Your task to perform on an android device: toggle airplane mode Image 0: 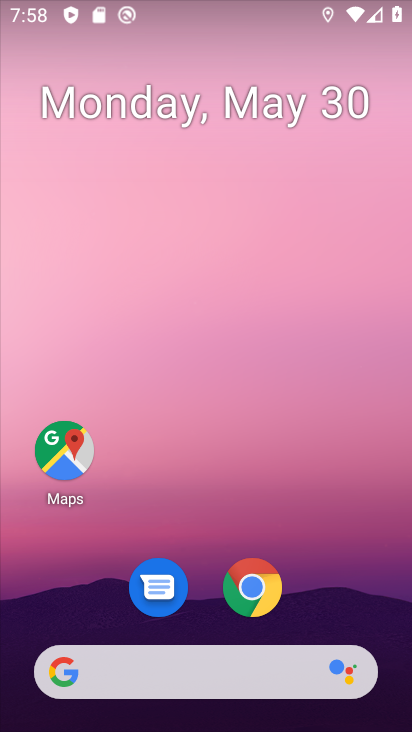
Step 0: drag from (217, 658) to (369, 93)
Your task to perform on an android device: toggle airplane mode Image 1: 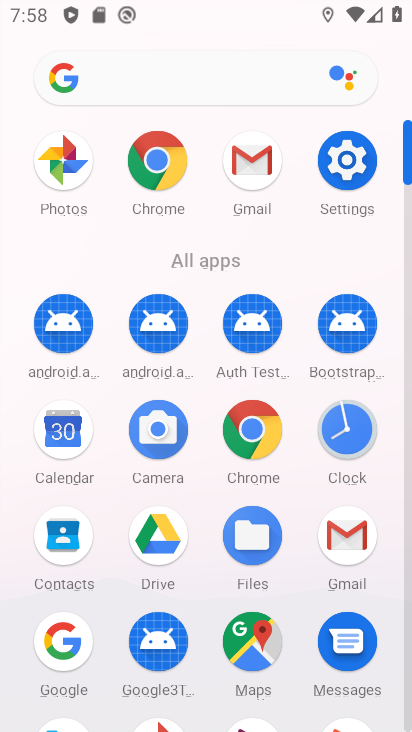
Step 1: click (354, 151)
Your task to perform on an android device: toggle airplane mode Image 2: 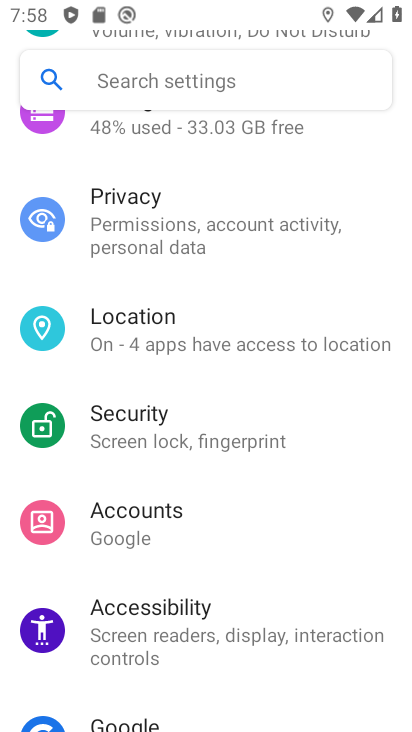
Step 2: drag from (356, 171) to (213, 683)
Your task to perform on an android device: toggle airplane mode Image 3: 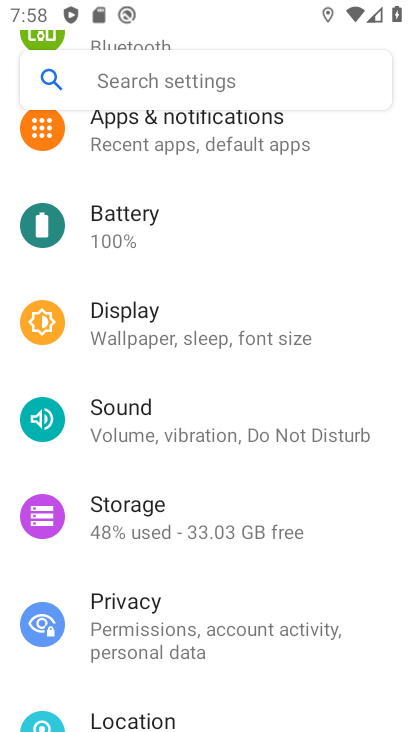
Step 3: drag from (314, 191) to (193, 695)
Your task to perform on an android device: toggle airplane mode Image 4: 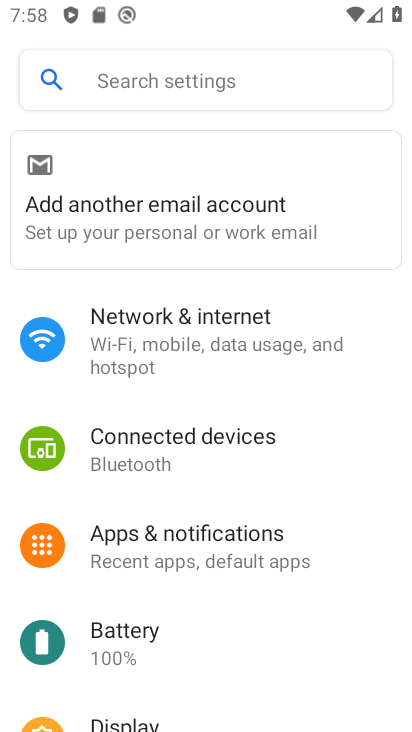
Step 4: click (208, 336)
Your task to perform on an android device: toggle airplane mode Image 5: 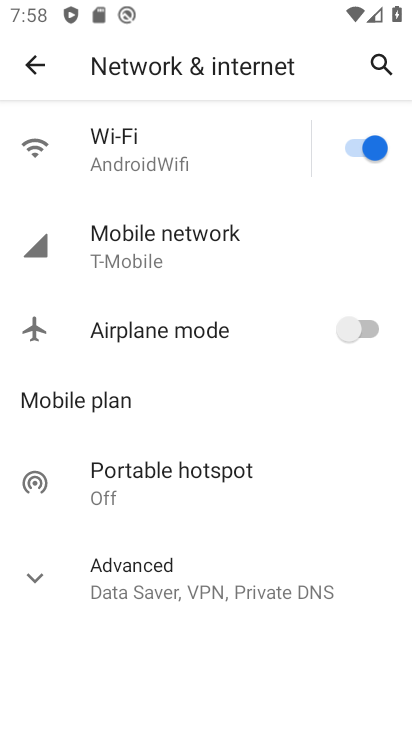
Step 5: click (369, 328)
Your task to perform on an android device: toggle airplane mode Image 6: 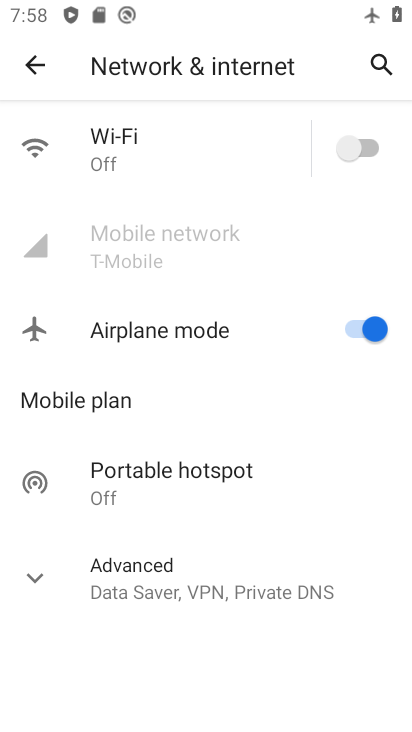
Step 6: task complete